Your task to perform on an android device: What's the weather going to be tomorrow? Image 0: 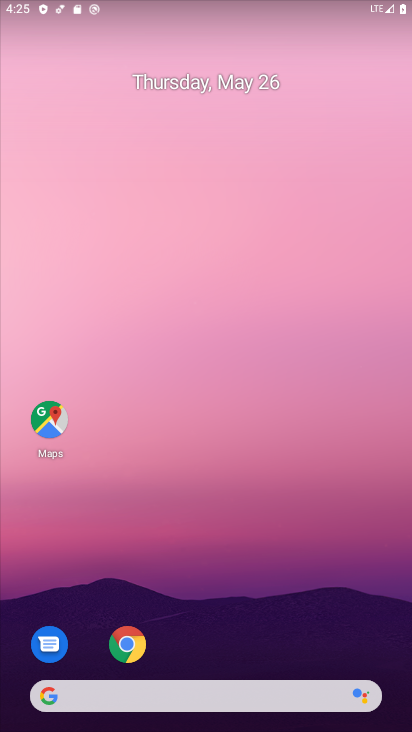
Step 0: drag from (197, 564) to (141, 46)
Your task to perform on an android device: What's the weather going to be tomorrow? Image 1: 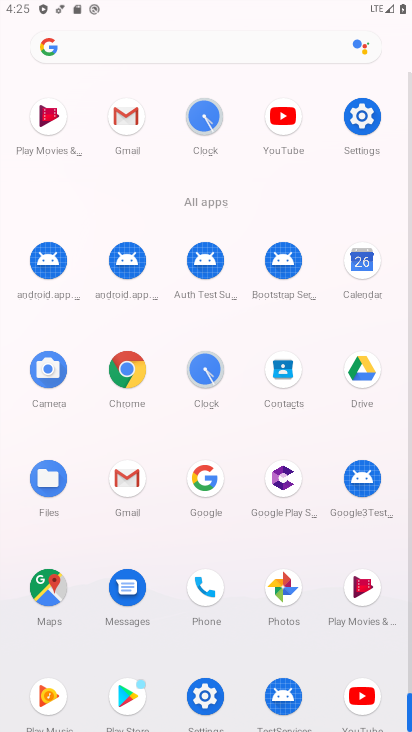
Step 1: drag from (9, 552) to (30, 178)
Your task to perform on an android device: What's the weather going to be tomorrow? Image 2: 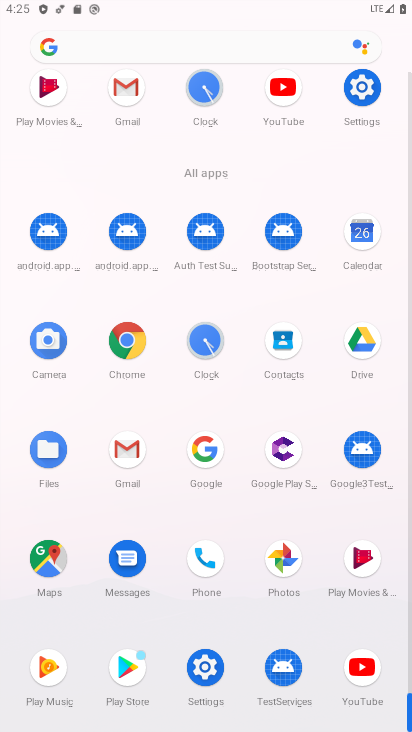
Step 2: click (124, 335)
Your task to perform on an android device: What's the weather going to be tomorrow? Image 3: 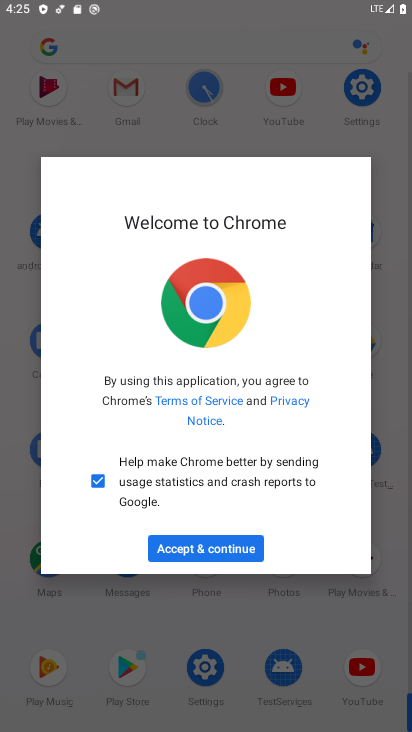
Step 3: click (208, 539)
Your task to perform on an android device: What's the weather going to be tomorrow? Image 4: 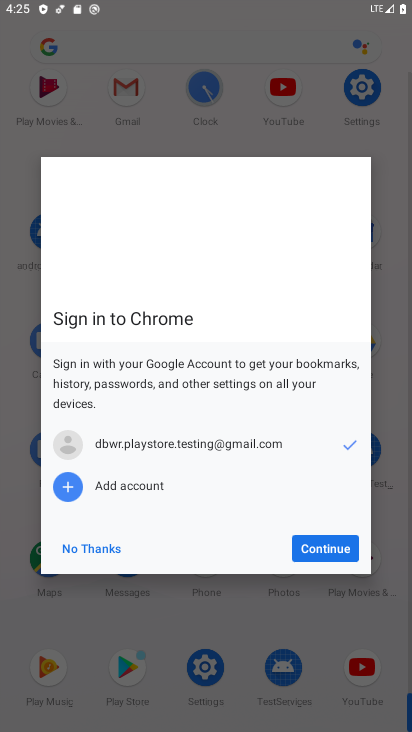
Step 4: click (335, 549)
Your task to perform on an android device: What's the weather going to be tomorrow? Image 5: 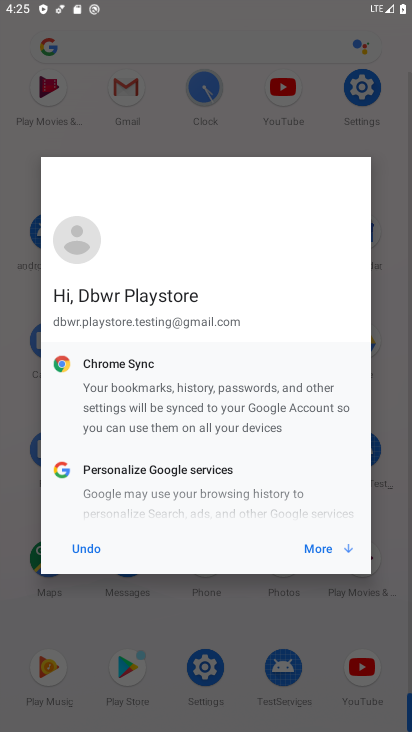
Step 5: click (332, 548)
Your task to perform on an android device: What's the weather going to be tomorrow? Image 6: 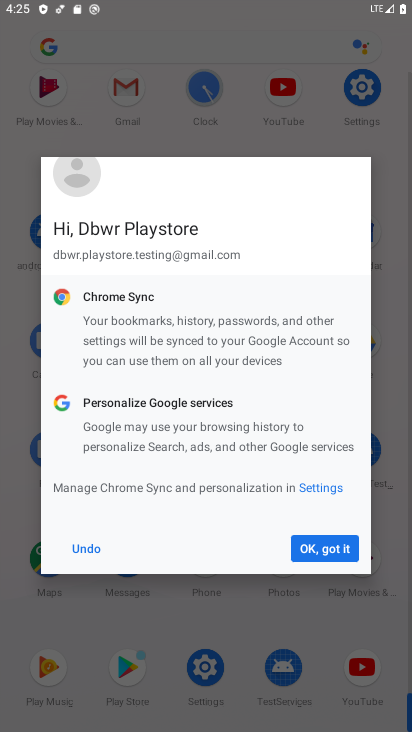
Step 6: click (332, 548)
Your task to perform on an android device: What's the weather going to be tomorrow? Image 7: 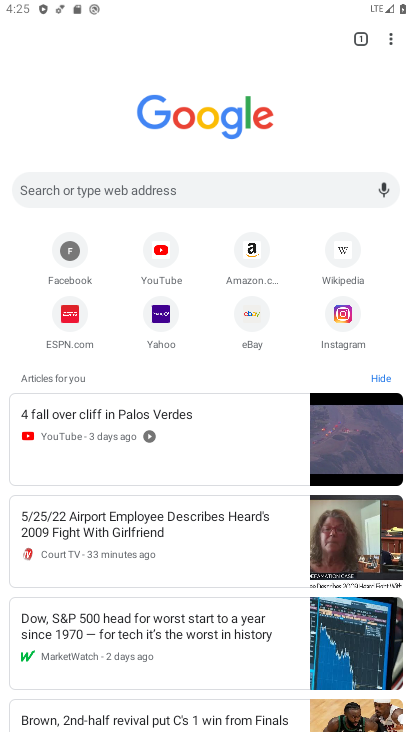
Step 7: click (114, 185)
Your task to perform on an android device: What's the weather going to be tomorrow? Image 8: 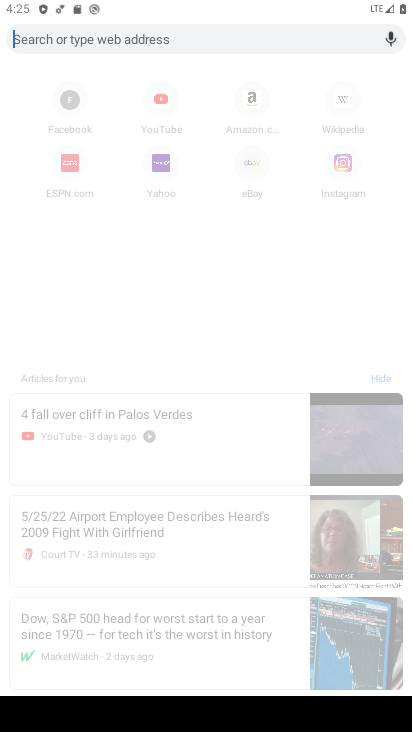
Step 8: type "What's the weather going to be tomorrow?"
Your task to perform on an android device: What's the weather going to be tomorrow? Image 9: 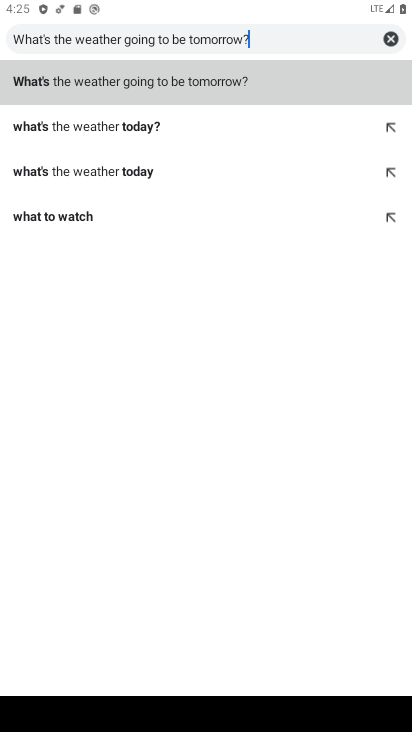
Step 9: type ""
Your task to perform on an android device: What's the weather going to be tomorrow? Image 10: 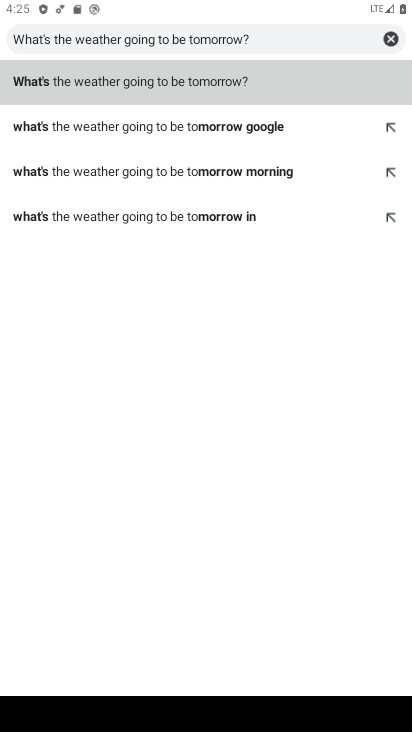
Step 10: click (174, 79)
Your task to perform on an android device: What's the weather going to be tomorrow? Image 11: 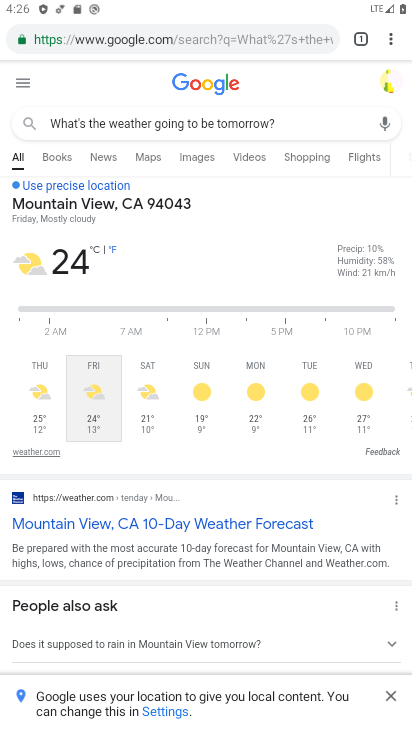
Step 11: task complete